Your task to perform on an android device: delete the emails in spam in the gmail app Image 0: 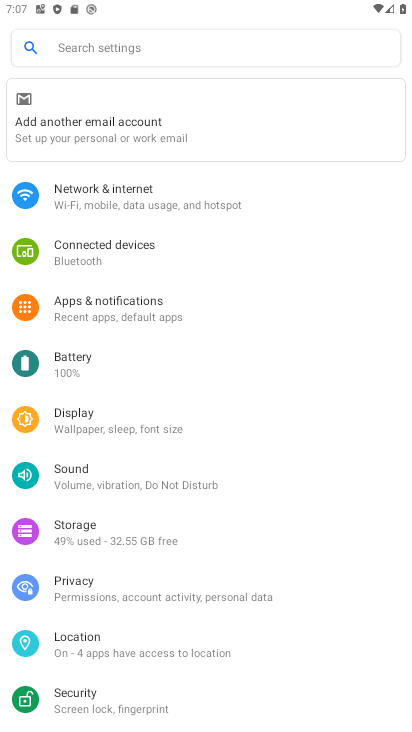
Step 0: press home button
Your task to perform on an android device: delete the emails in spam in the gmail app Image 1: 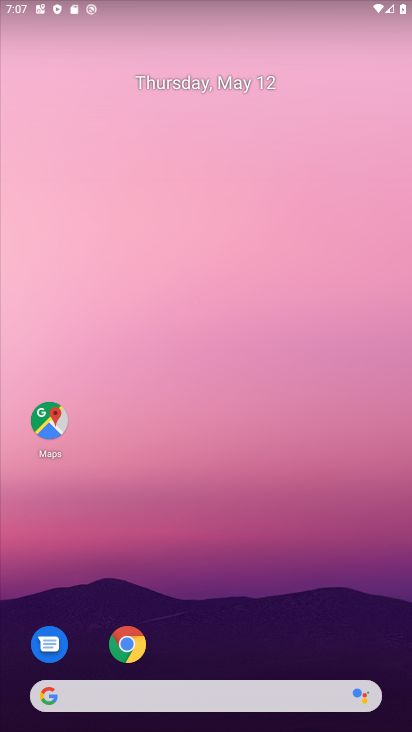
Step 1: drag from (269, 700) to (311, 206)
Your task to perform on an android device: delete the emails in spam in the gmail app Image 2: 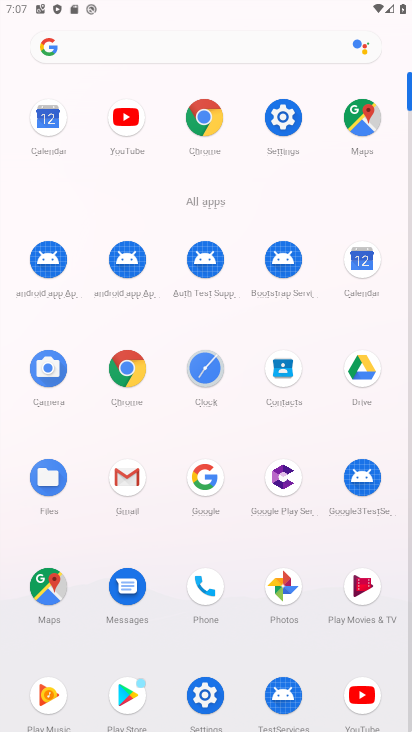
Step 2: click (140, 474)
Your task to perform on an android device: delete the emails in spam in the gmail app Image 3: 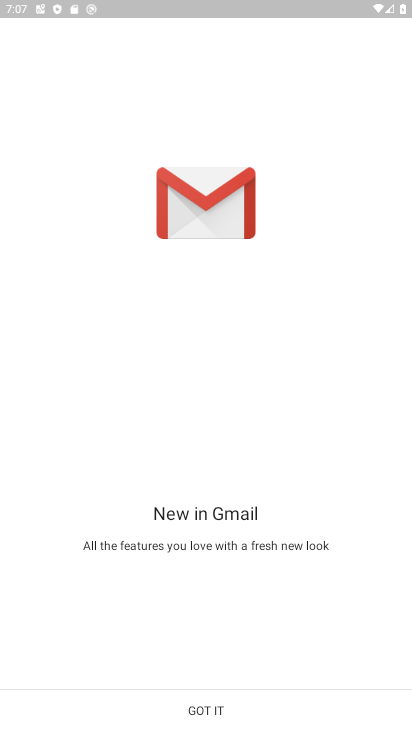
Step 3: click (175, 708)
Your task to perform on an android device: delete the emails in spam in the gmail app Image 4: 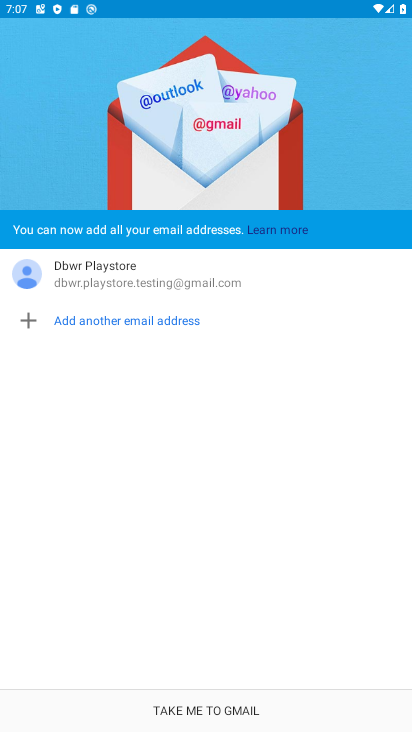
Step 4: click (199, 716)
Your task to perform on an android device: delete the emails in spam in the gmail app Image 5: 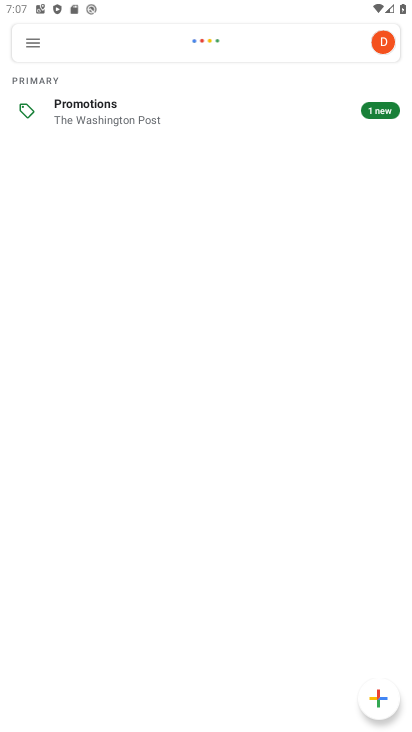
Step 5: click (38, 45)
Your task to perform on an android device: delete the emails in spam in the gmail app Image 6: 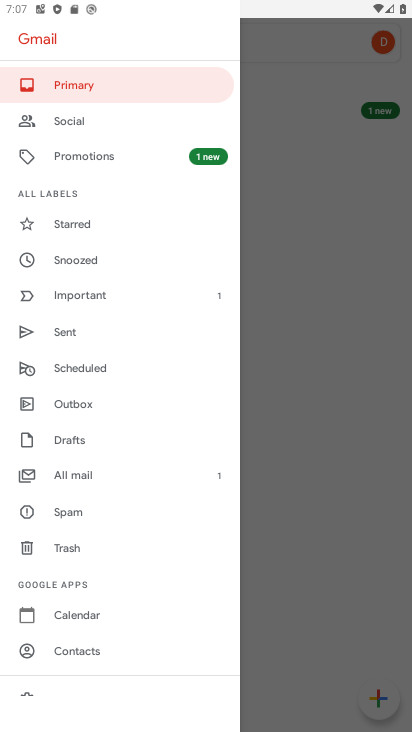
Step 6: click (75, 515)
Your task to perform on an android device: delete the emails in spam in the gmail app Image 7: 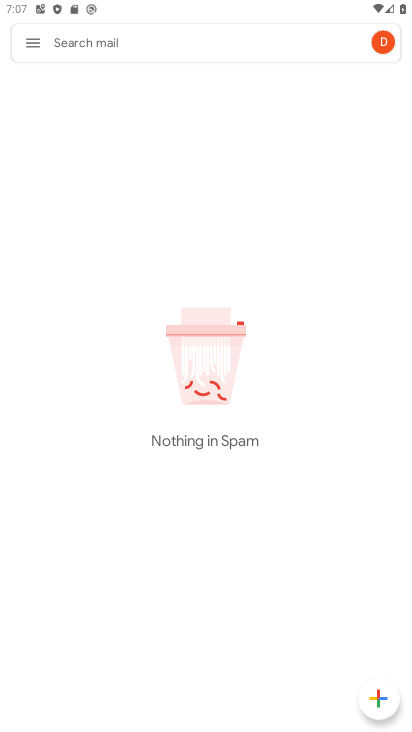
Step 7: task complete